Your task to perform on an android device: Go to notification settings Image 0: 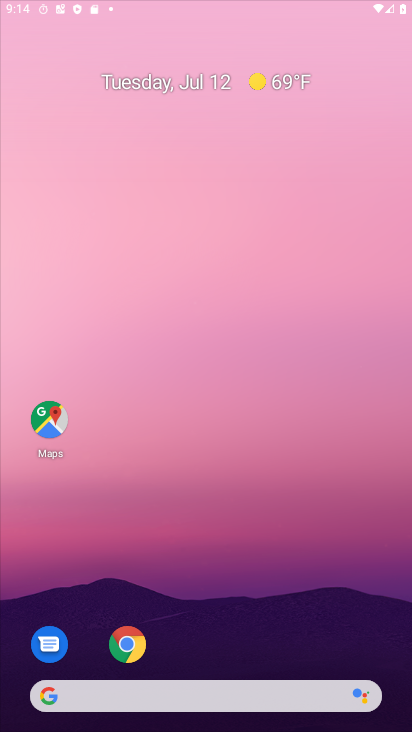
Step 0: press home button
Your task to perform on an android device: Go to notification settings Image 1: 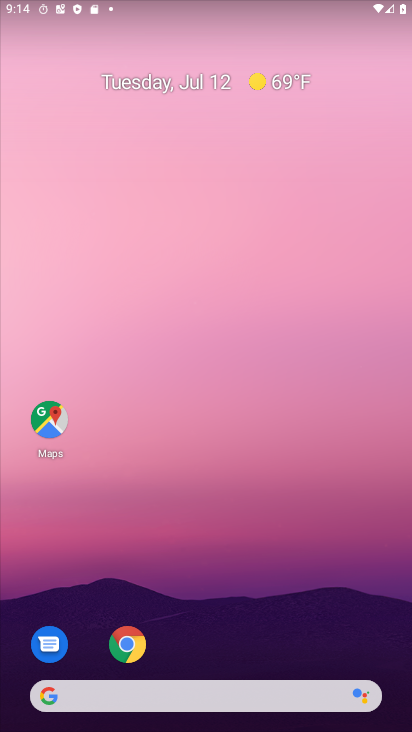
Step 1: drag from (207, 642) to (199, 27)
Your task to perform on an android device: Go to notification settings Image 2: 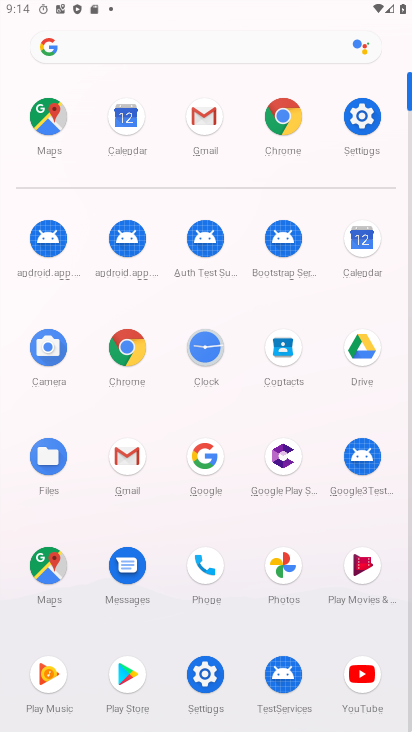
Step 2: click (362, 113)
Your task to perform on an android device: Go to notification settings Image 3: 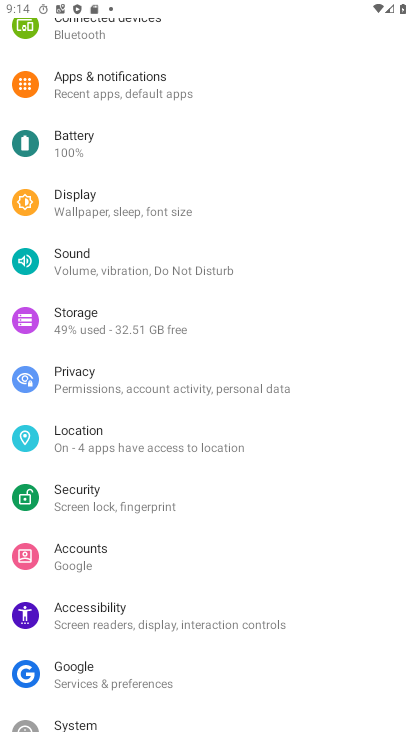
Step 3: click (172, 75)
Your task to perform on an android device: Go to notification settings Image 4: 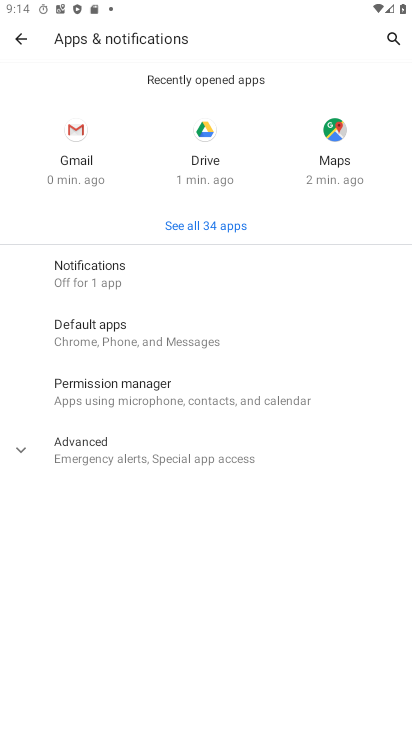
Step 4: click (139, 265)
Your task to perform on an android device: Go to notification settings Image 5: 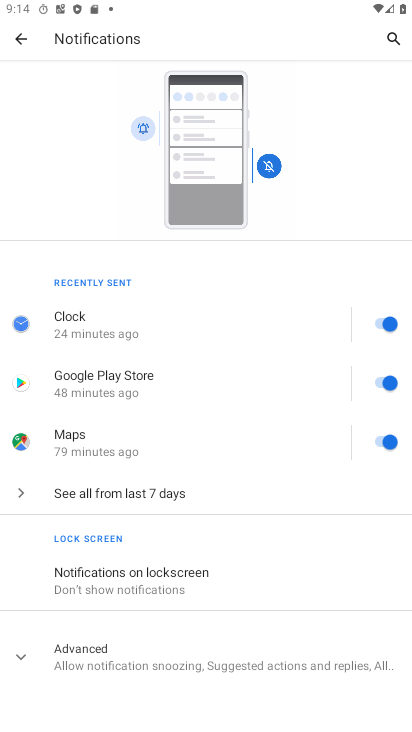
Step 5: click (19, 651)
Your task to perform on an android device: Go to notification settings Image 6: 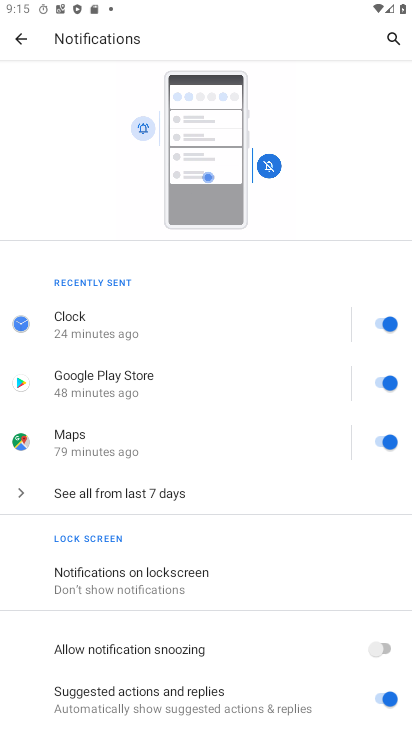
Step 6: task complete